Your task to perform on an android device: change notifications settings Image 0: 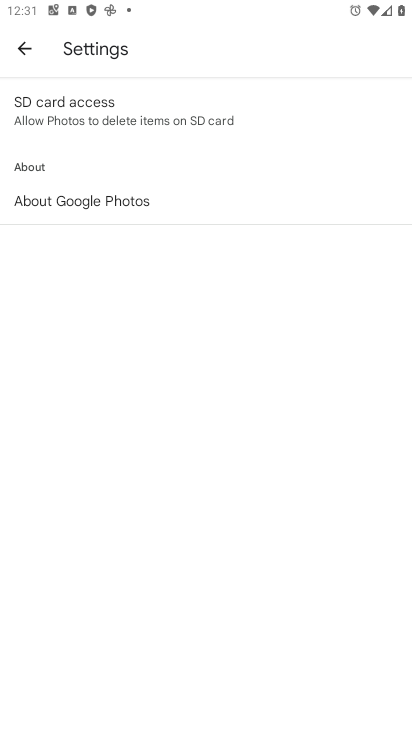
Step 0: click (295, 700)
Your task to perform on an android device: change notifications settings Image 1: 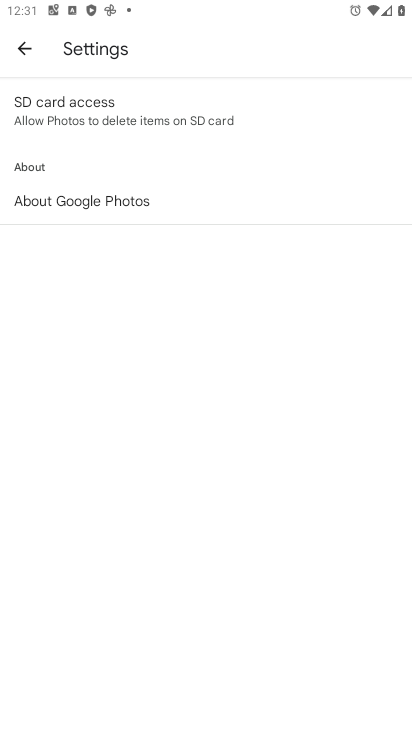
Step 1: press home button
Your task to perform on an android device: change notifications settings Image 2: 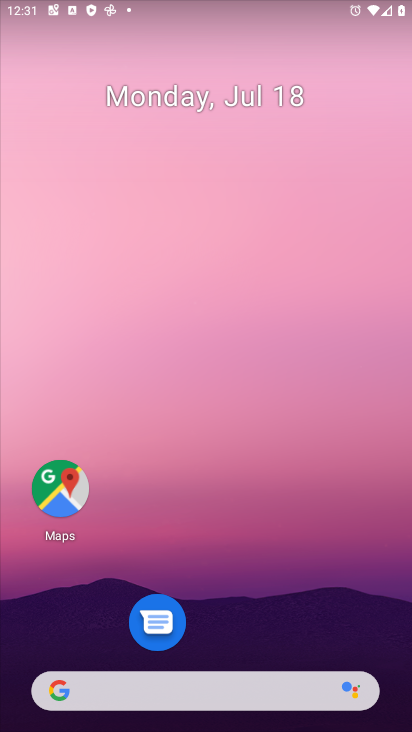
Step 2: drag from (181, 707) to (220, 172)
Your task to perform on an android device: change notifications settings Image 3: 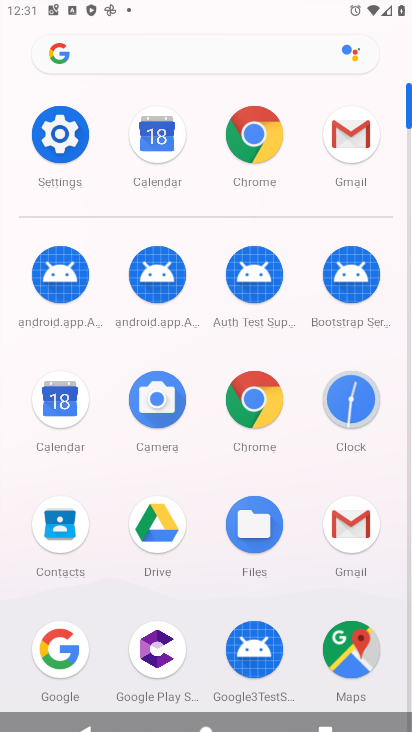
Step 3: click (59, 136)
Your task to perform on an android device: change notifications settings Image 4: 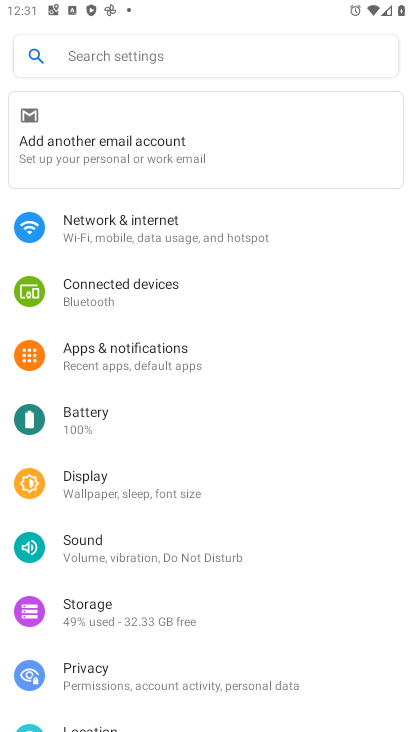
Step 4: click (157, 358)
Your task to perform on an android device: change notifications settings Image 5: 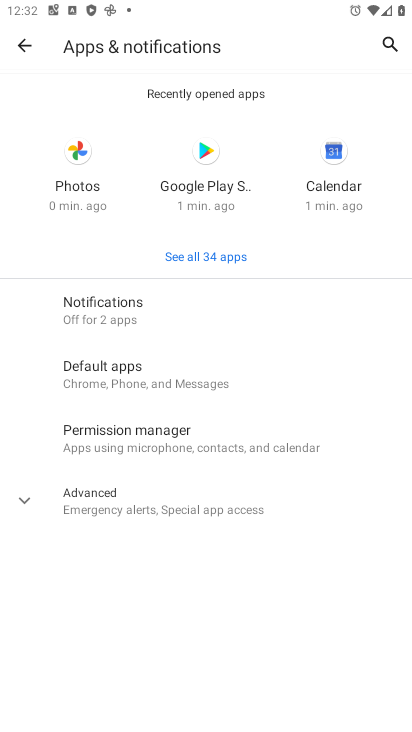
Step 5: click (142, 317)
Your task to perform on an android device: change notifications settings Image 6: 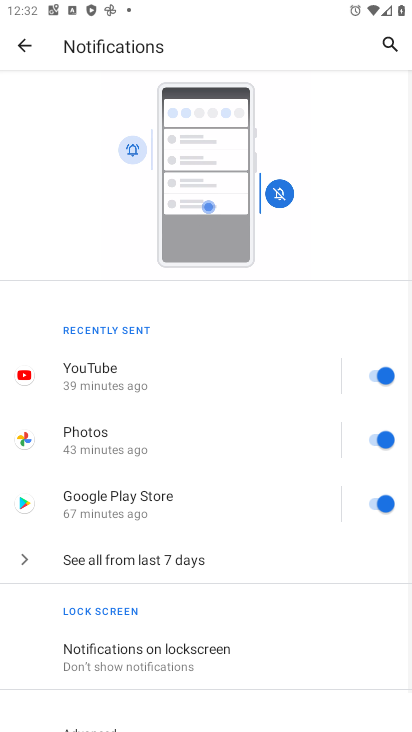
Step 6: click (382, 376)
Your task to perform on an android device: change notifications settings Image 7: 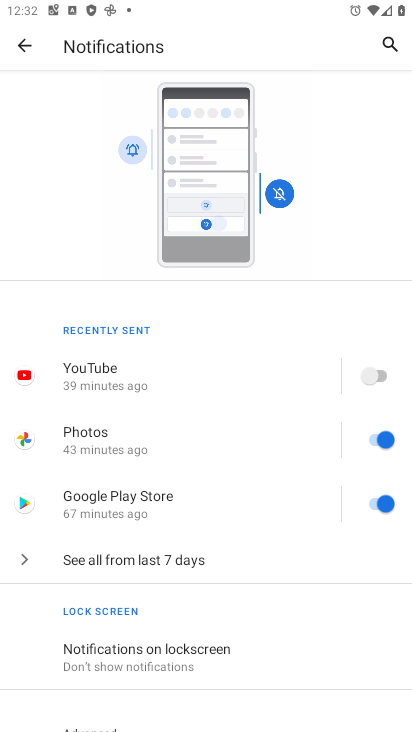
Step 7: task complete